Your task to perform on an android device: turn off location Image 0: 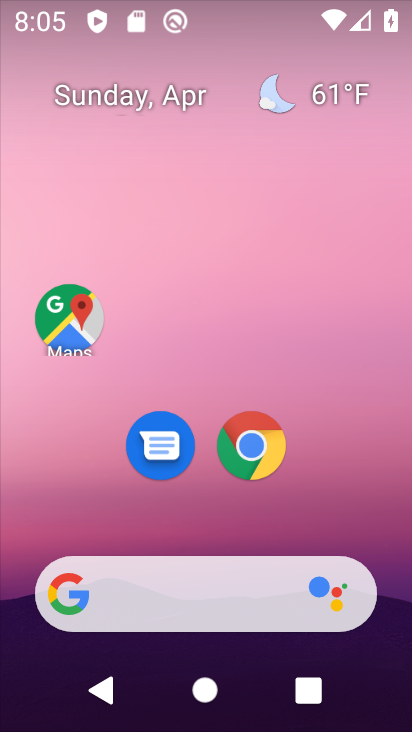
Step 0: drag from (202, 530) to (202, 130)
Your task to perform on an android device: turn off location Image 1: 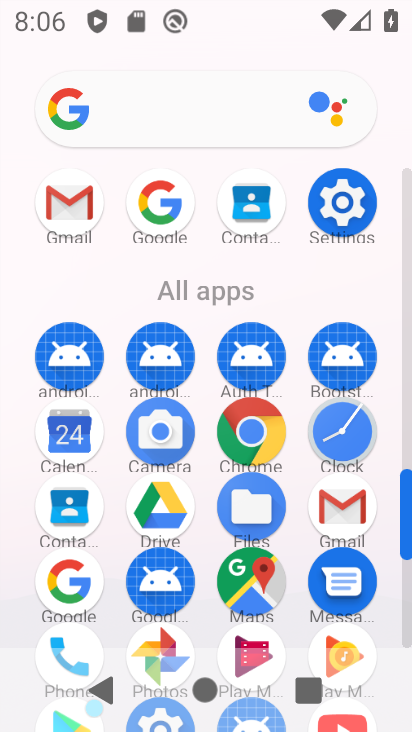
Step 1: click (343, 187)
Your task to perform on an android device: turn off location Image 2: 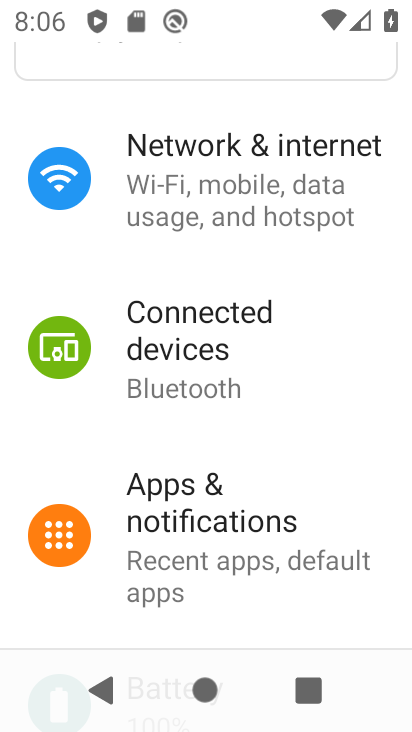
Step 2: drag from (253, 513) to (274, 265)
Your task to perform on an android device: turn off location Image 3: 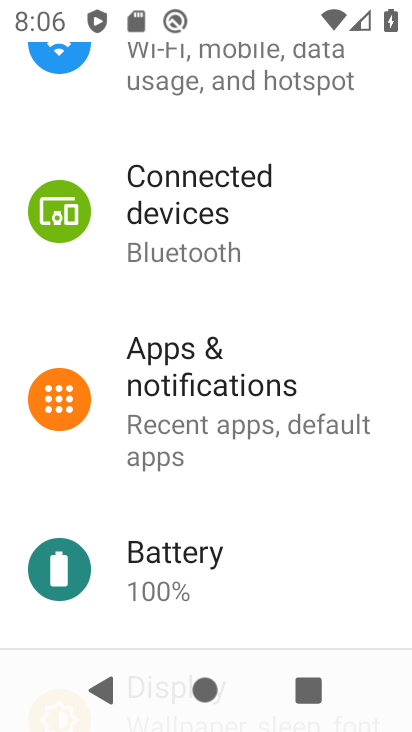
Step 3: drag from (274, 542) to (329, 204)
Your task to perform on an android device: turn off location Image 4: 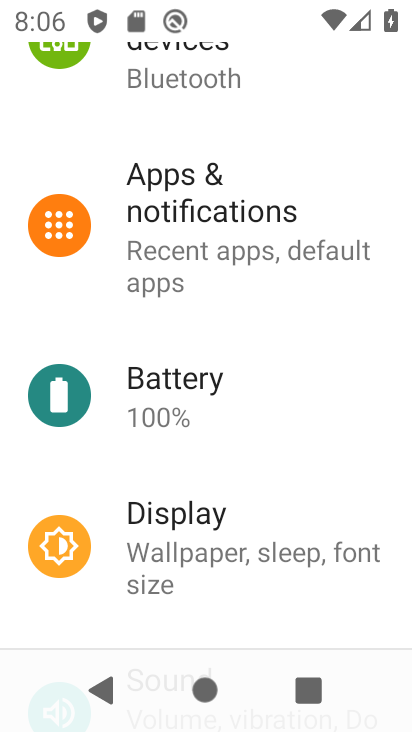
Step 4: drag from (306, 488) to (343, 212)
Your task to perform on an android device: turn off location Image 5: 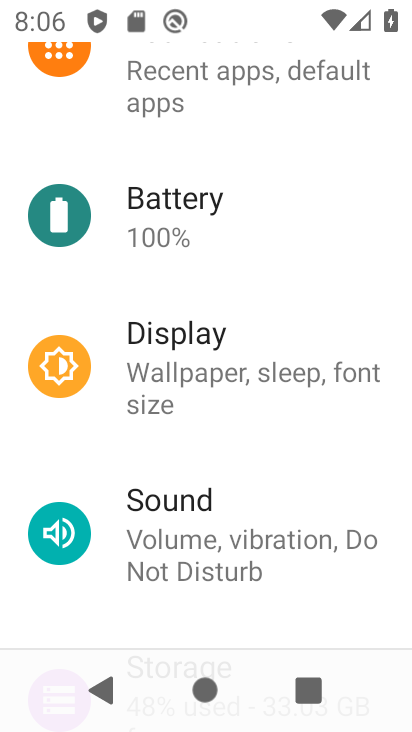
Step 5: drag from (337, 438) to (366, 176)
Your task to perform on an android device: turn off location Image 6: 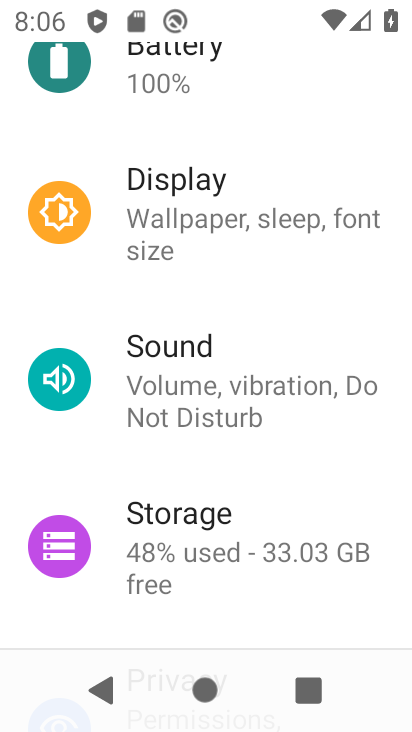
Step 6: drag from (304, 523) to (344, 263)
Your task to perform on an android device: turn off location Image 7: 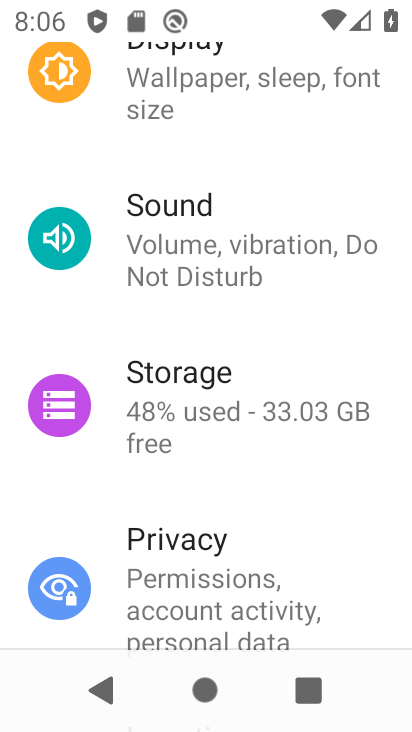
Step 7: drag from (278, 605) to (332, 313)
Your task to perform on an android device: turn off location Image 8: 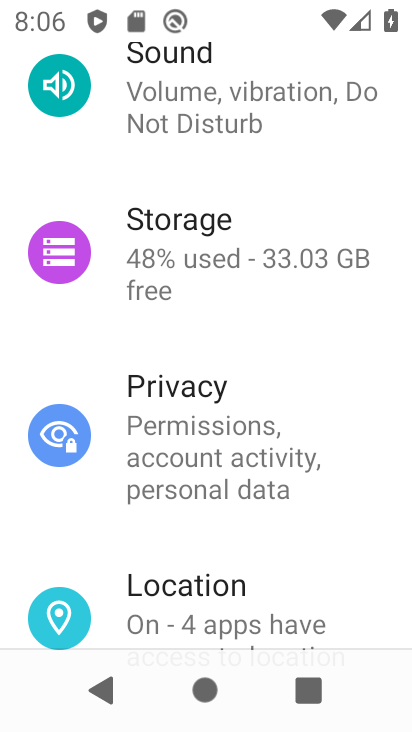
Step 8: drag from (313, 313) to (328, 229)
Your task to perform on an android device: turn off location Image 9: 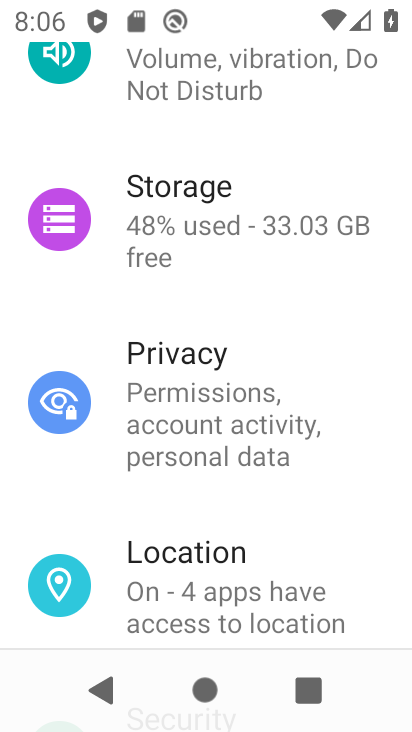
Step 9: drag from (283, 488) to (304, 235)
Your task to perform on an android device: turn off location Image 10: 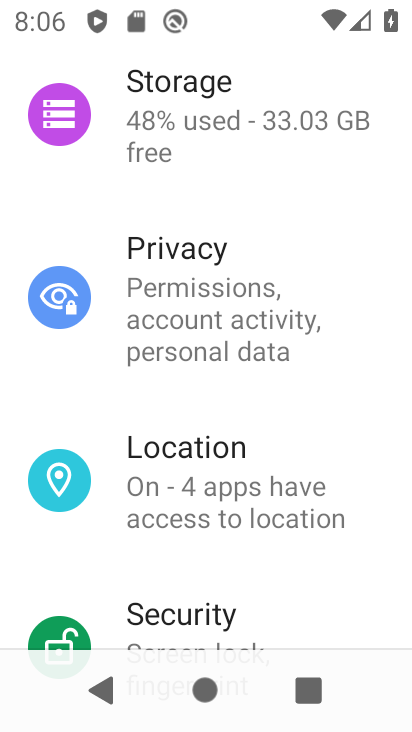
Step 10: click (160, 445)
Your task to perform on an android device: turn off location Image 11: 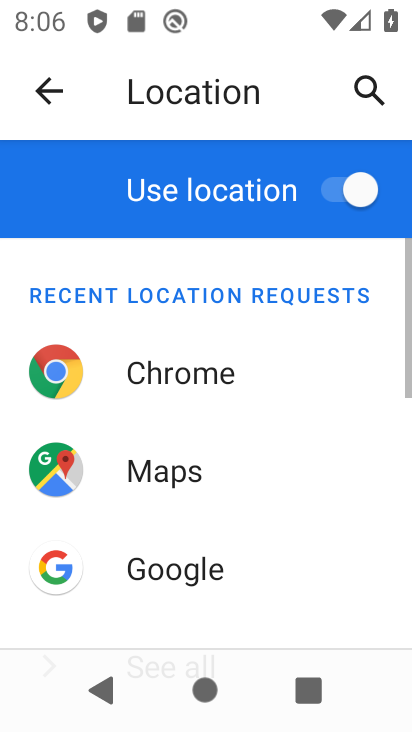
Step 11: click (327, 195)
Your task to perform on an android device: turn off location Image 12: 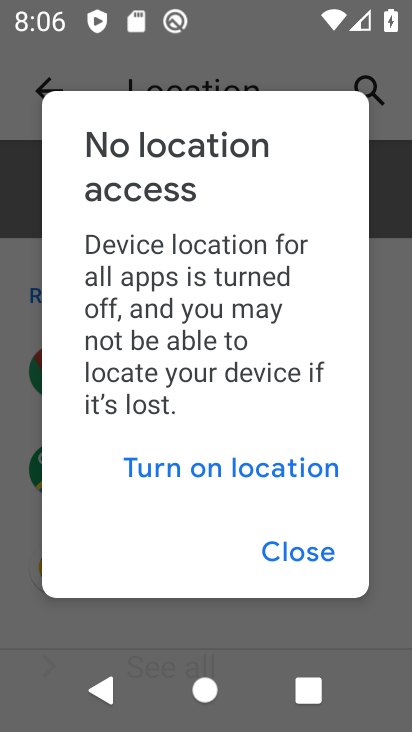
Step 12: task complete